Your task to perform on an android device: change keyboard looks Image 0: 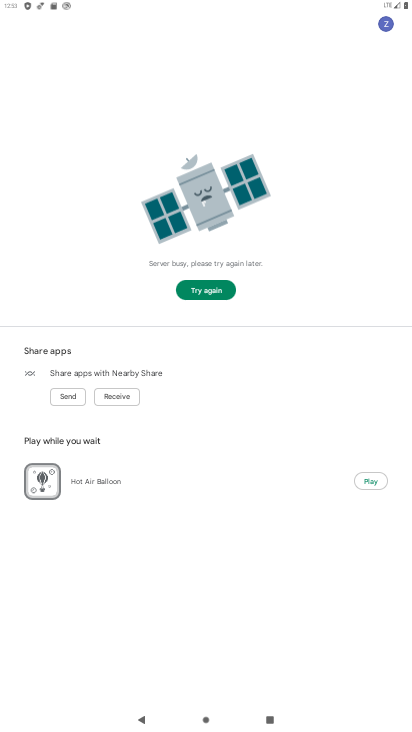
Step 0: press home button
Your task to perform on an android device: change keyboard looks Image 1: 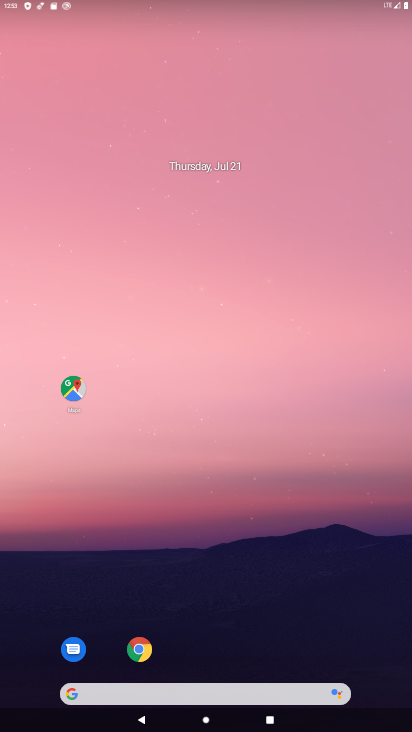
Step 1: drag from (173, 664) to (162, 211)
Your task to perform on an android device: change keyboard looks Image 2: 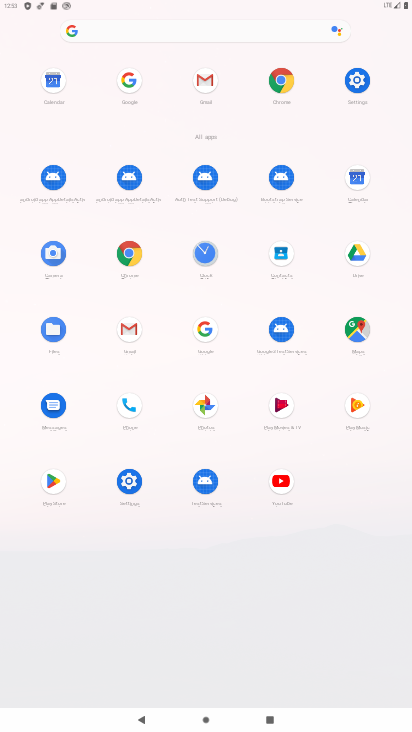
Step 2: click (360, 76)
Your task to perform on an android device: change keyboard looks Image 3: 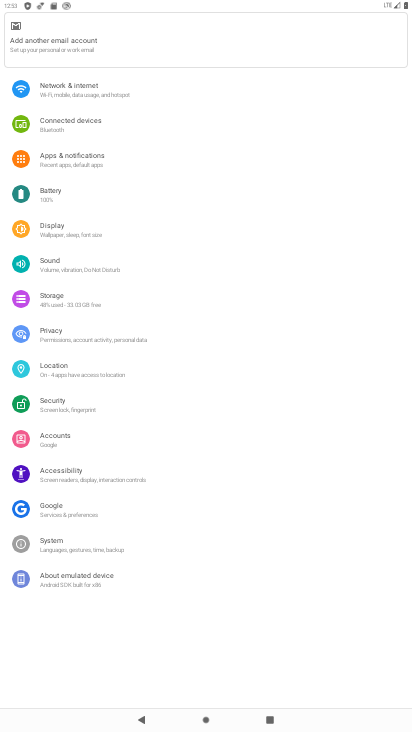
Step 3: click (58, 550)
Your task to perform on an android device: change keyboard looks Image 4: 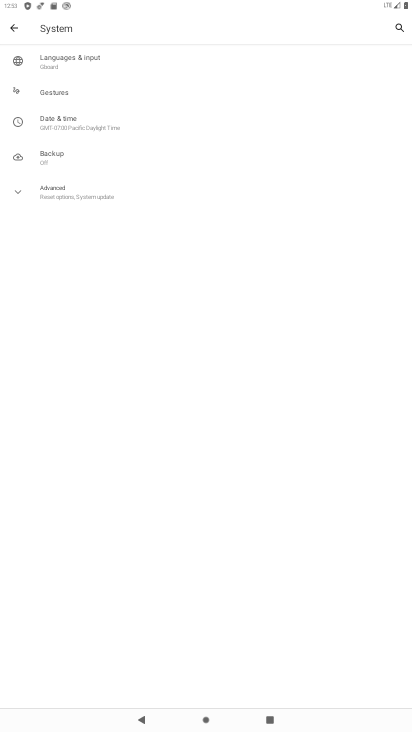
Step 4: click (60, 62)
Your task to perform on an android device: change keyboard looks Image 5: 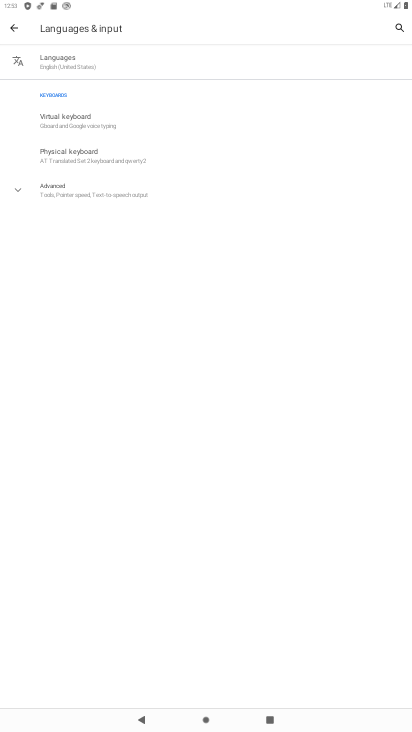
Step 5: click (57, 121)
Your task to perform on an android device: change keyboard looks Image 6: 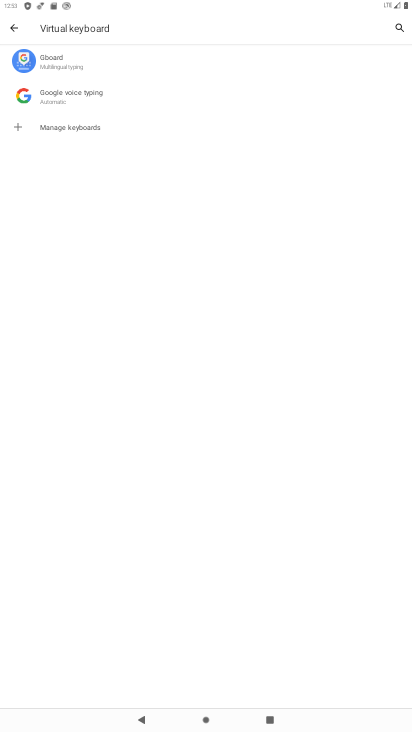
Step 6: click (52, 60)
Your task to perform on an android device: change keyboard looks Image 7: 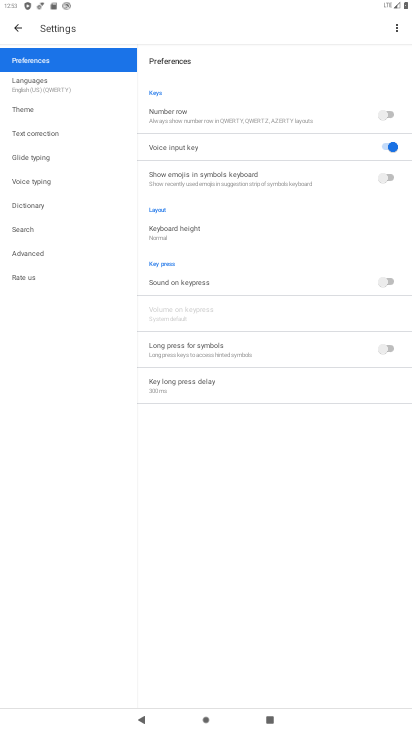
Step 7: click (17, 117)
Your task to perform on an android device: change keyboard looks Image 8: 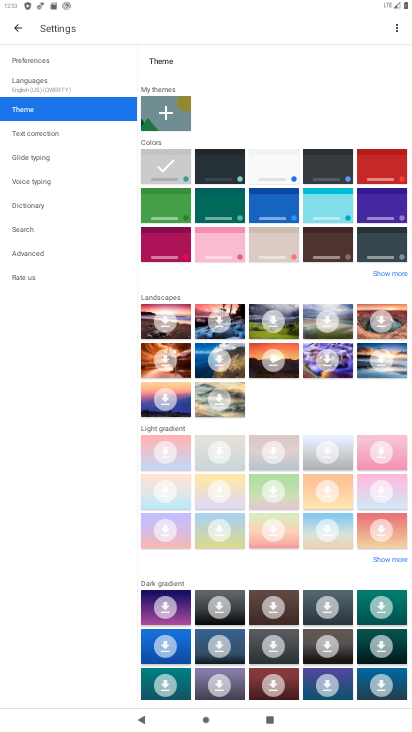
Step 8: click (328, 234)
Your task to perform on an android device: change keyboard looks Image 9: 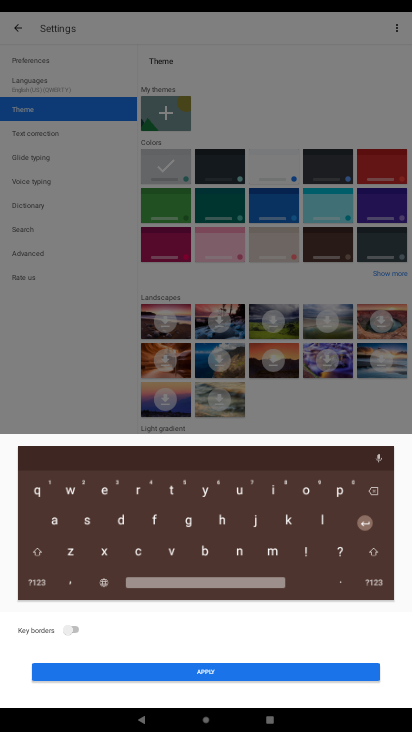
Step 9: click (246, 681)
Your task to perform on an android device: change keyboard looks Image 10: 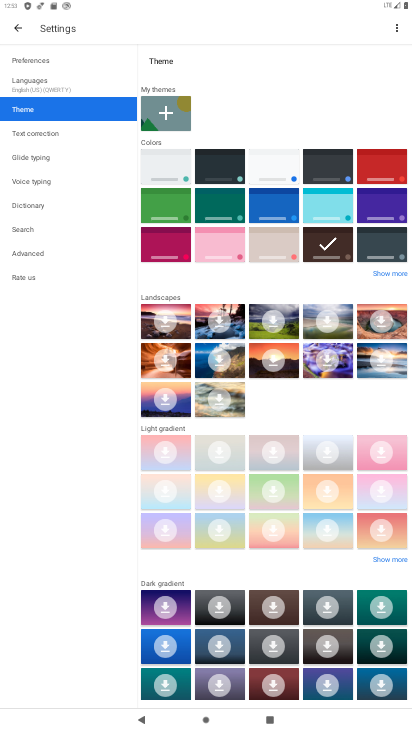
Step 10: task complete